Your task to perform on an android device: change alarm snooze length Image 0: 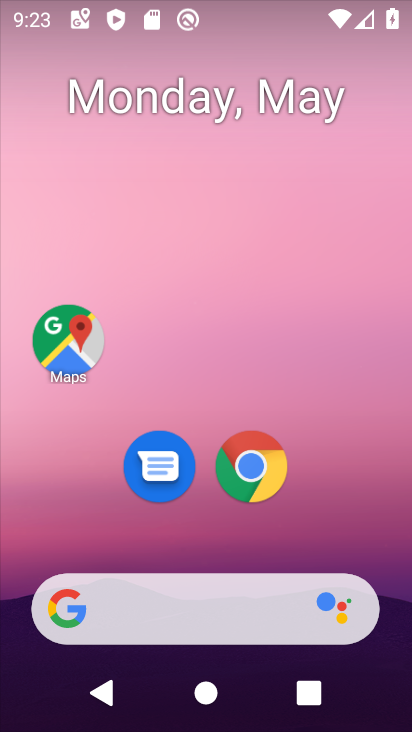
Step 0: drag from (238, 645) to (267, 116)
Your task to perform on an android device: change alarm snooze length Image 1: 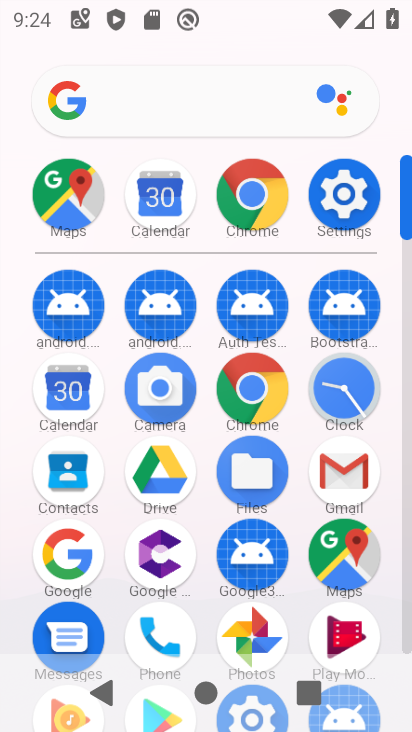
Step 1: click (329, 392)
Your task to perform on an android device: change alarm snooze length Image 2: 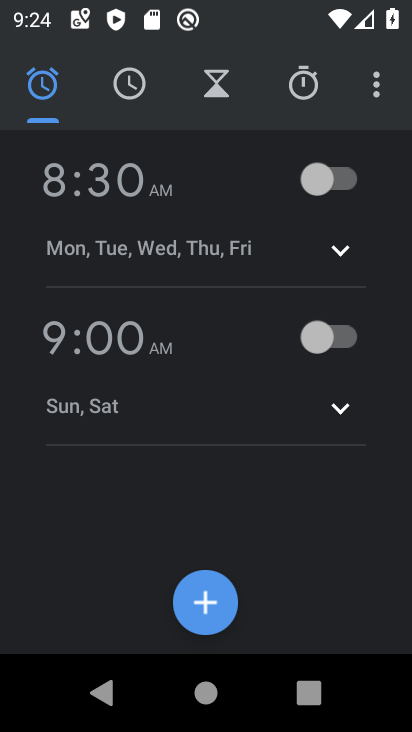
Step 2: click (378, 102)
Your task to perform on an android device: change alarm snooze length Image 3: 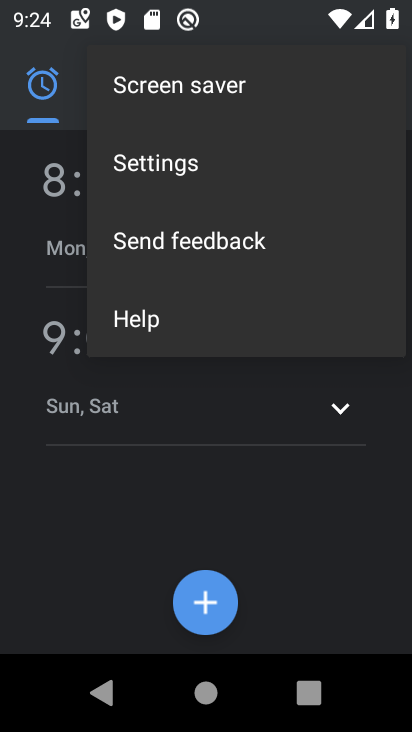
Step 3: click (167, 169)
Your task to perform on an android device: change alarm snooze length Image 4: 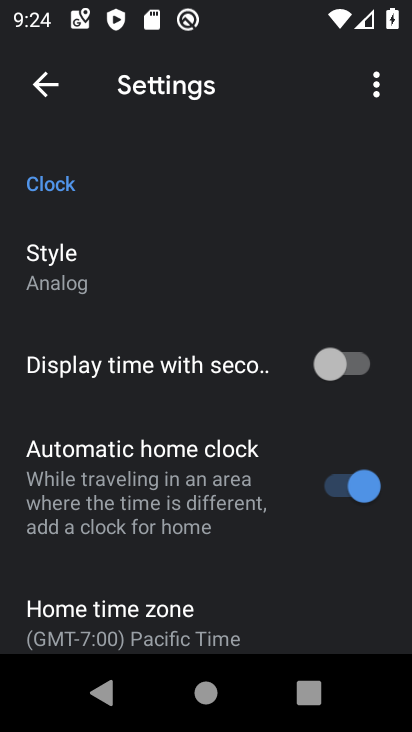
Step 4: drag from (157, 567) to (145, 82)
Your task to perform on an android device: change alarm snooze length Image 5: 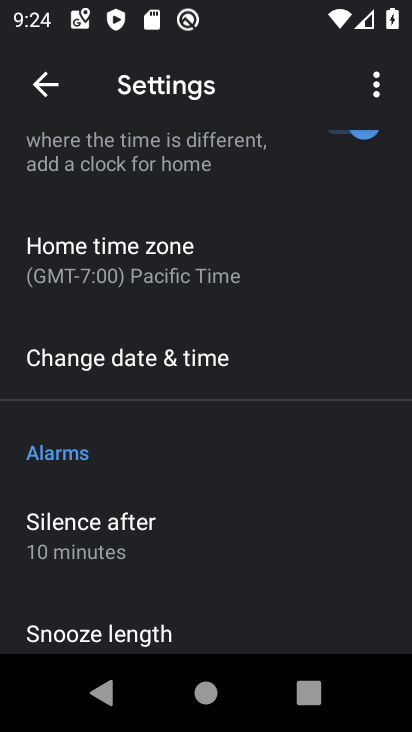
Step 5: click (82, 617)
Your task to perform on an android device: change alarm snooze length Image 6: 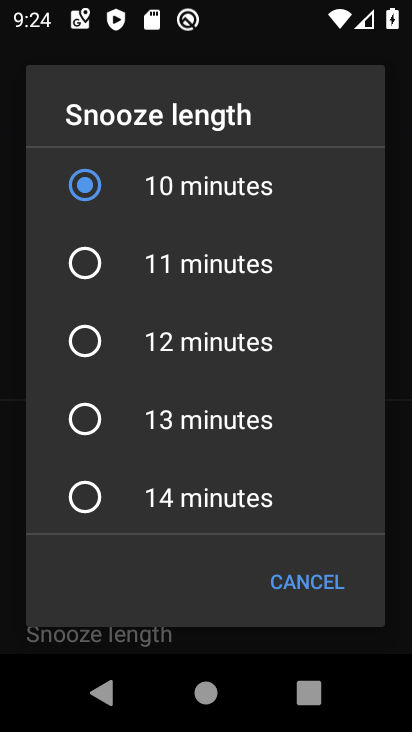
Step 6: click (169, 360)
Your task to perform on an android device: change alarm snooze length Image 7: 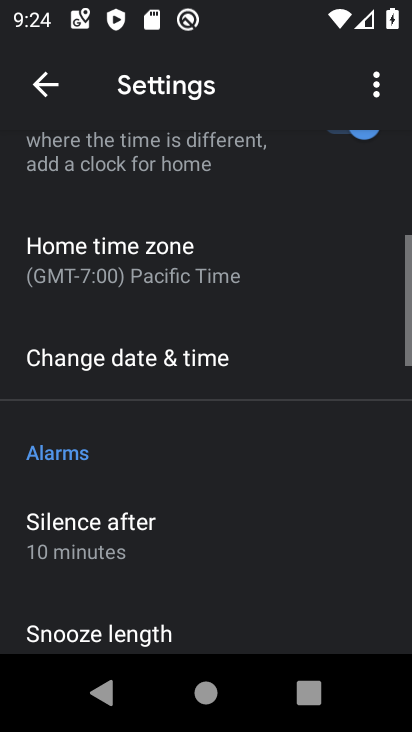
Step 7: task complete